Your task to perform on an android device: Toggle the flashlight Image 0: 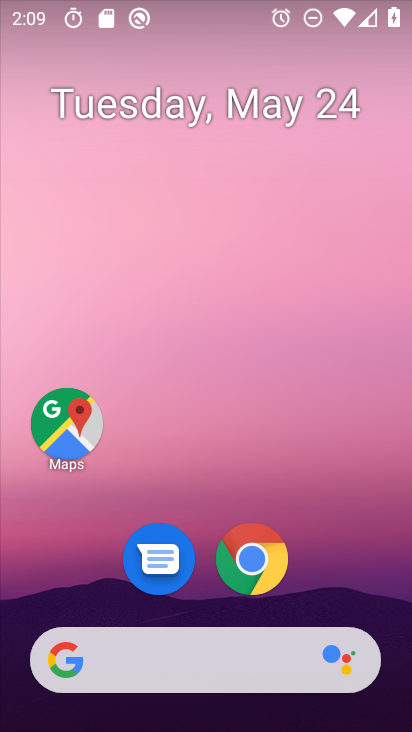
Step 0: press home button
Your task to perform on an android device: Toggle the flashlight Image 1: 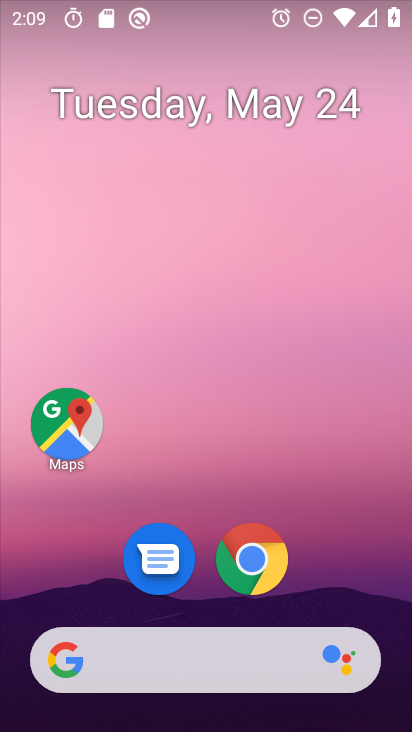
Step 1: drag from (396, 705) to (360, 89)
Your task to perform on an android device: Toggle the flashlight Image 2: 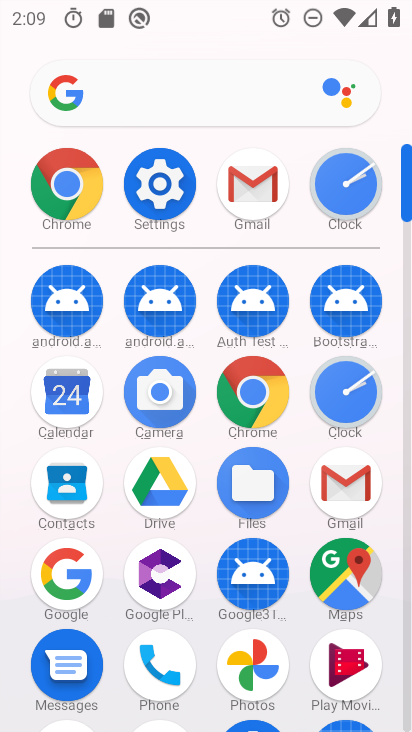
Step 2: click (167, 179)
Your task to perform on an android device: Toggle the flashlight Image 3: 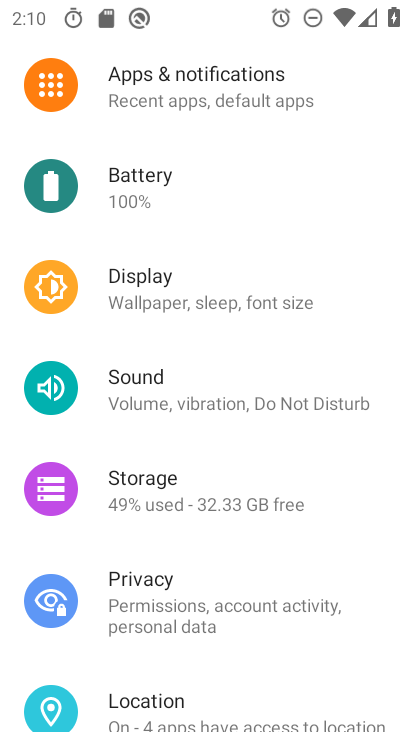
Step 3: drag from (335, 187) to (335, 496)
Your task to perform on an android device: Toggle the flashlight Image 4: 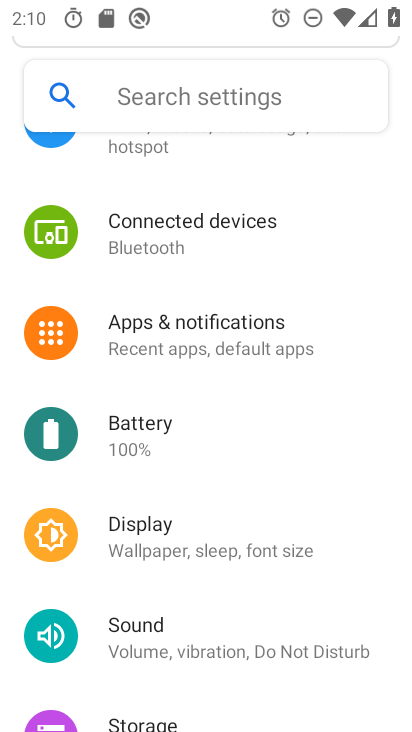
Step 4: click (153, 540)
Your task to perform on an android device: Toggle the flashlight Image 5: 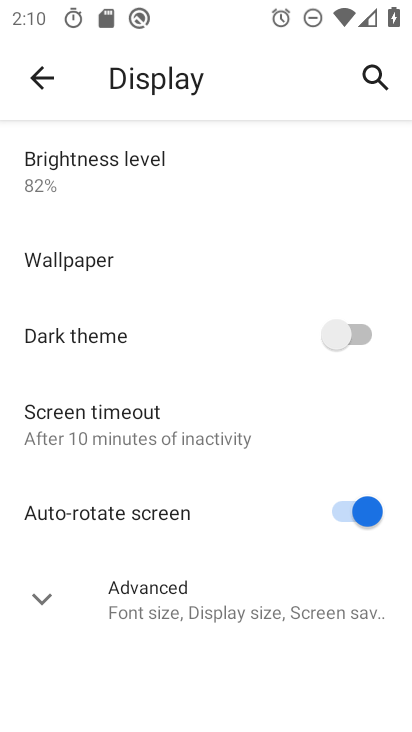
Step 5: task complete